Your task to perform on an android device: Open Chrome and go to settings Image 0: 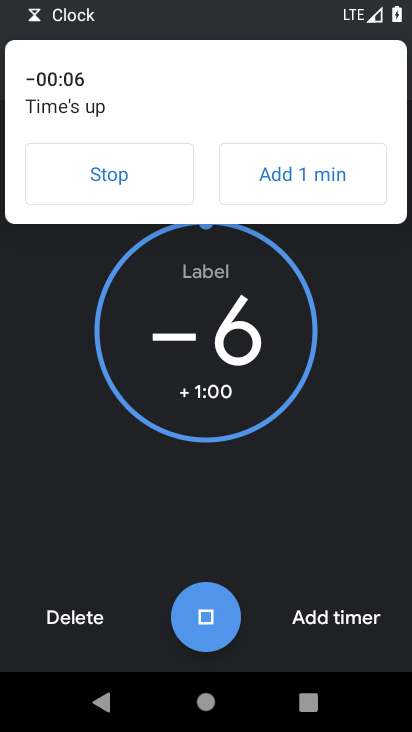
Step 0: click (115, 155)
Your task to perform on an android device: Open Chrome and go to settings Image 1: 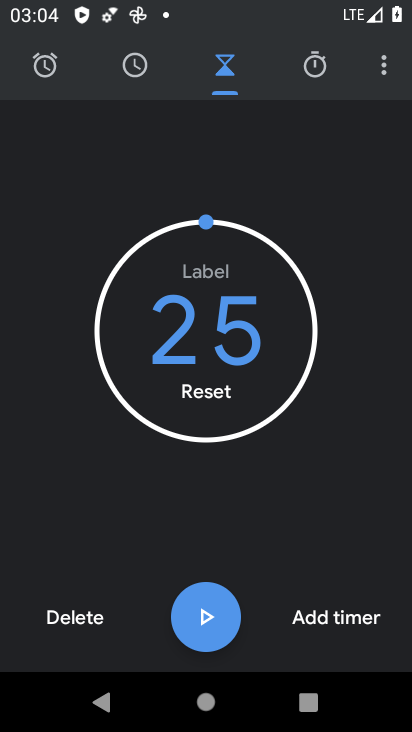
Step 1: press home button
Your task to perform on an android device: Open Chrome and go to settings Image 2: 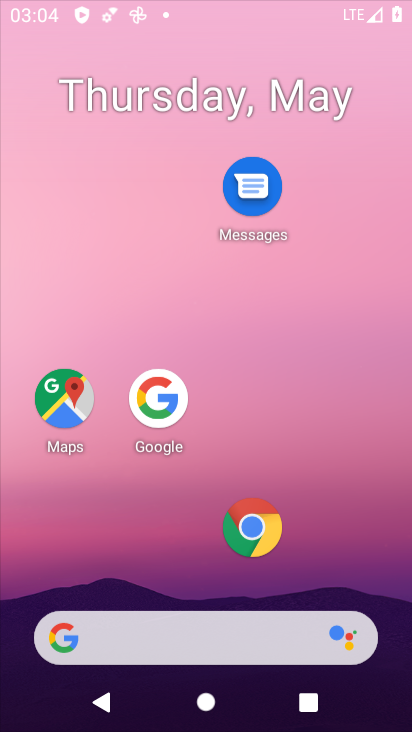
Step 2: drag from (164, 594) to (215, 194)
Your task to perform on an android device: Open Chrome and go to settings Image 3: 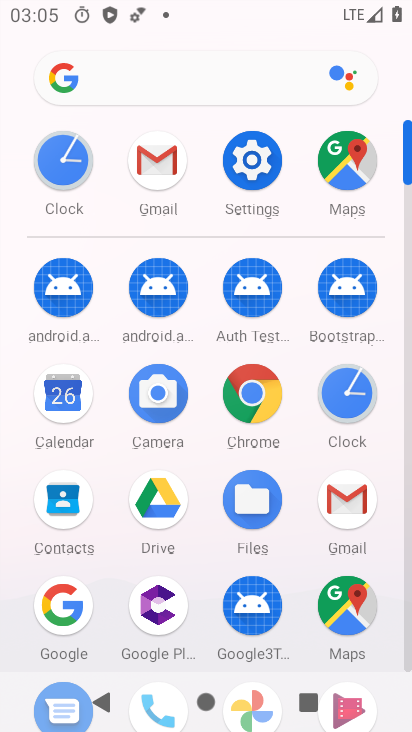
Step 3: click (255, 383)
Your task to perform on an android device: Open Chrome and go to settings Image 4: 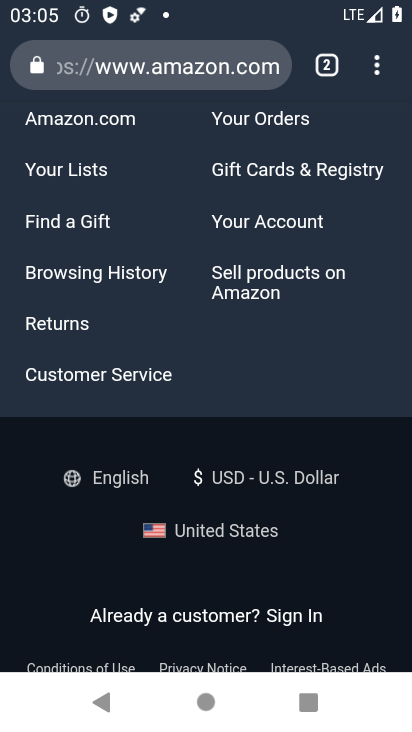
Step 4: drag from (252, 252) to (383, 730)
Your task to perform on an android device: Open Chrome and go to settings Image 5: 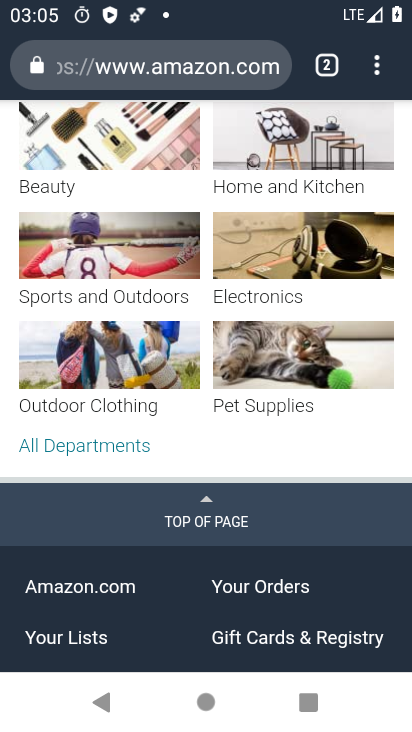
Step 5: click (380, 72)
Your task to perform on an android device: Open Chrome and go to settings Image 6: 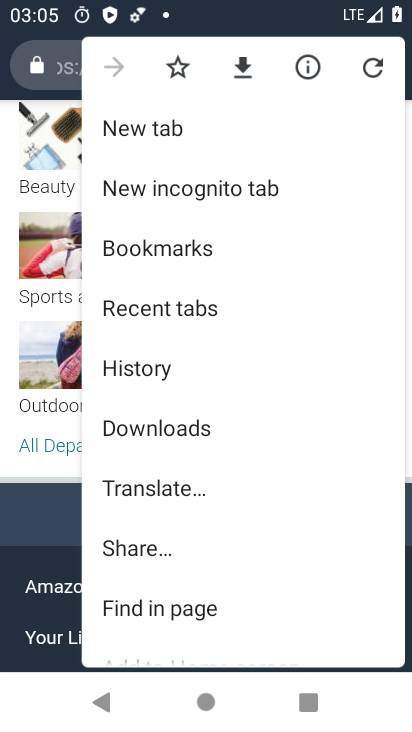
Step 6: drag from (187, 598) to (277, 146)
Your task to perform on an android device: Open Chrome and go to settings Image 7: 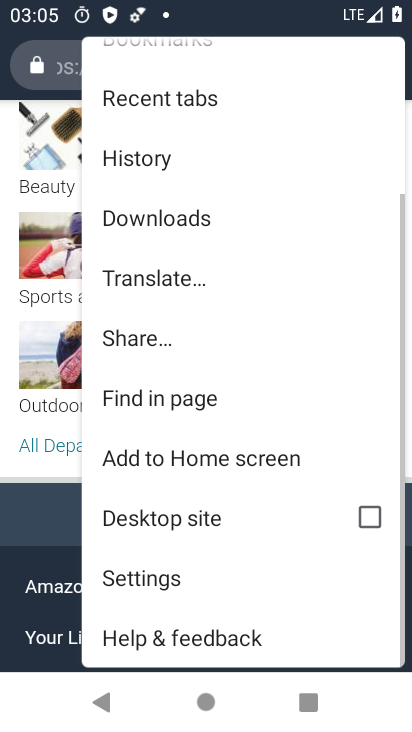
Step 7: click (186, 590)
Your task to perform on an android device: Open Chrome and go to settings Image 8: 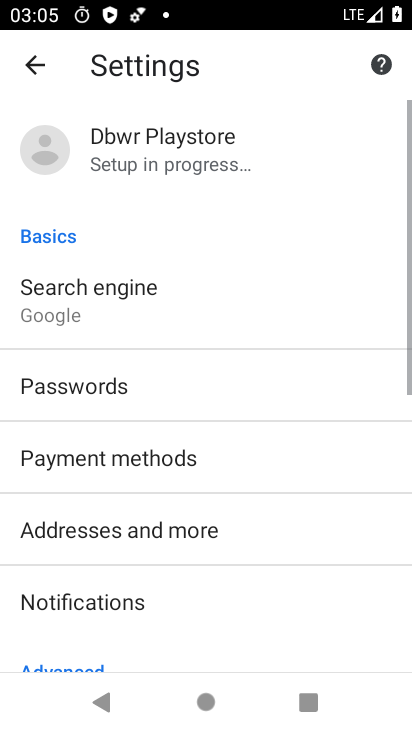
Step 8: task complete